Your task to perform on an android device: Search for Italian restaurants on Maps Image 0: 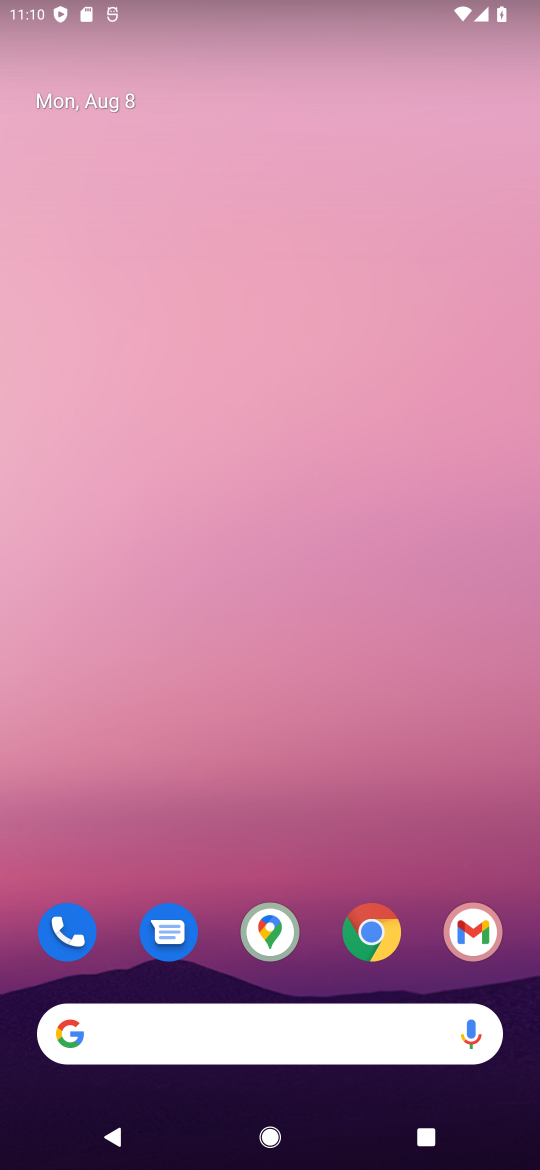
Step 0: click (284, 947)
Your task to perform on an android device: Search for Italian restaurants on Maps Image 1: 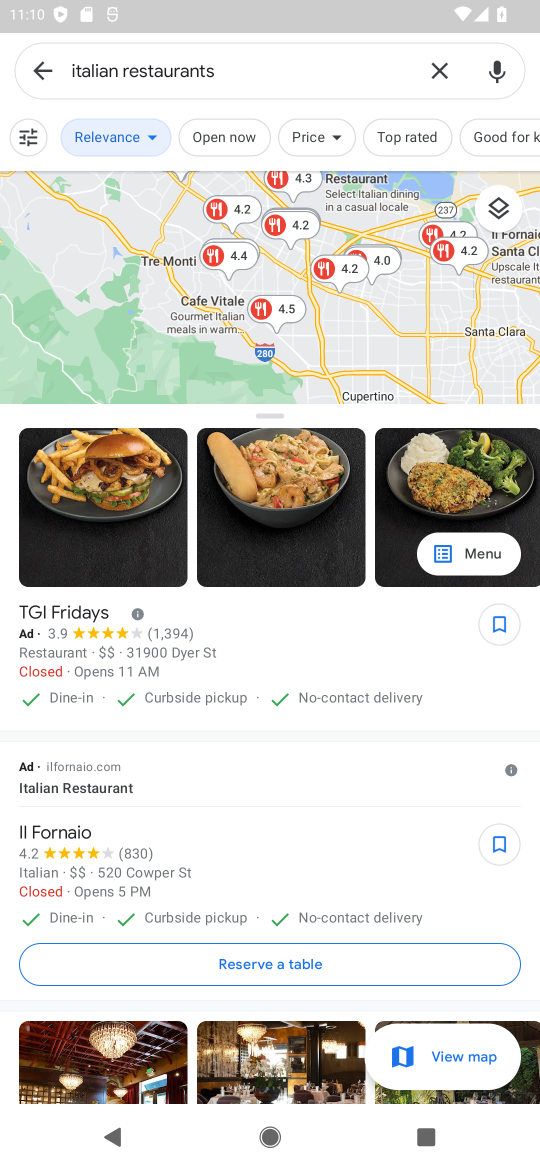
Step 1: task complete